Your task to perform on an android device: uninstall "Facebook" Image 0: 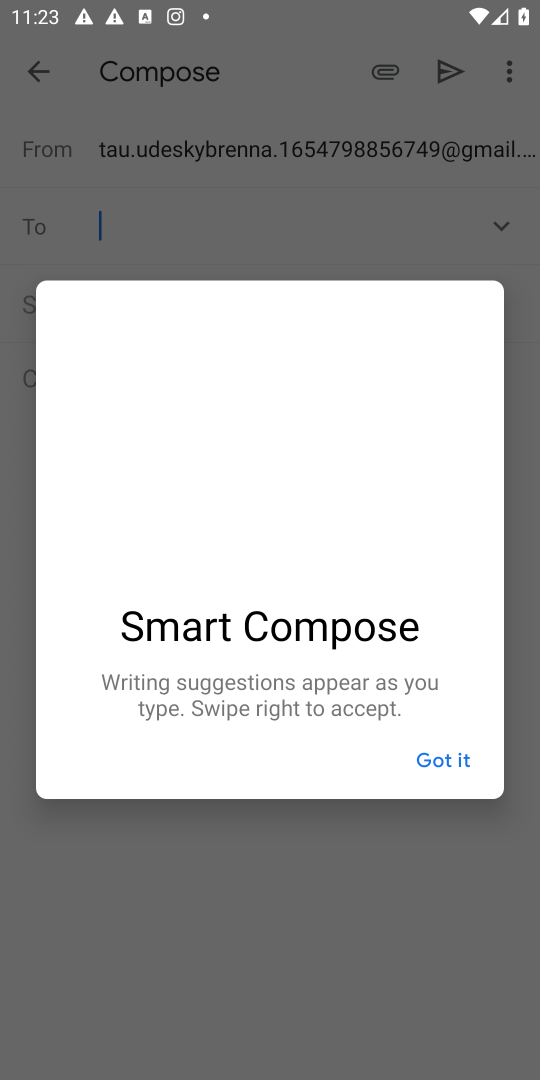
Step 0: click (272, 588)
Your task to perform on an android device: uninstall "Facebook" Image 1: 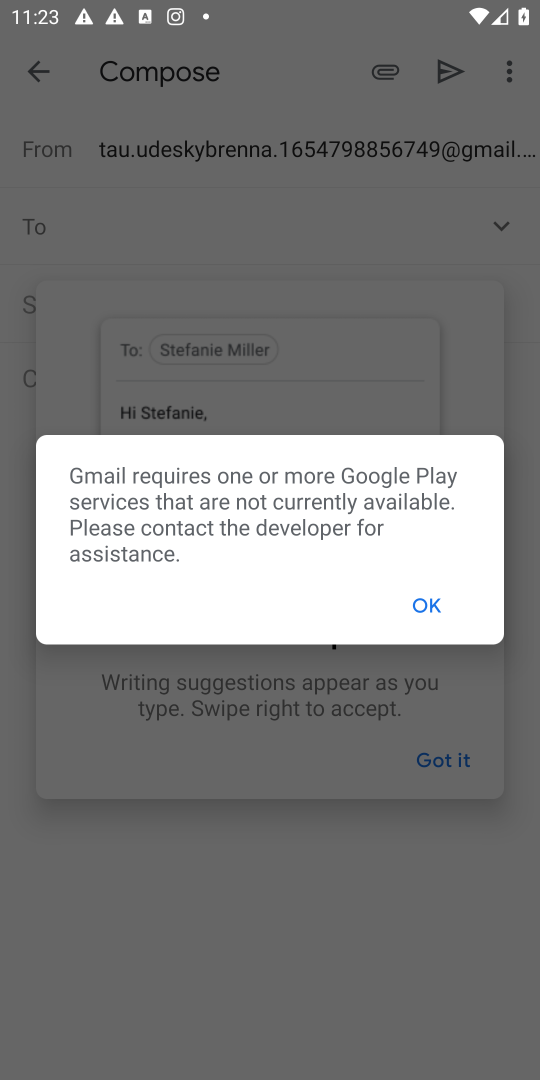
Step 1: press home button
Your task to perform on an android device: uninstall "Facebook" Image 2: 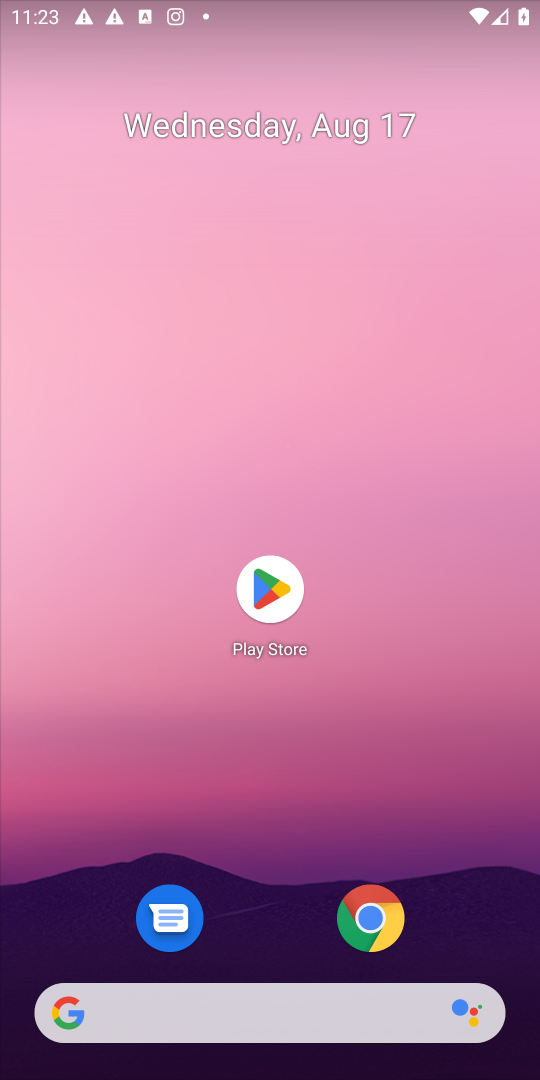
Step 2: click (278, 590)
Your task to perform on an android device: uninstall "Facebook" Image 3: 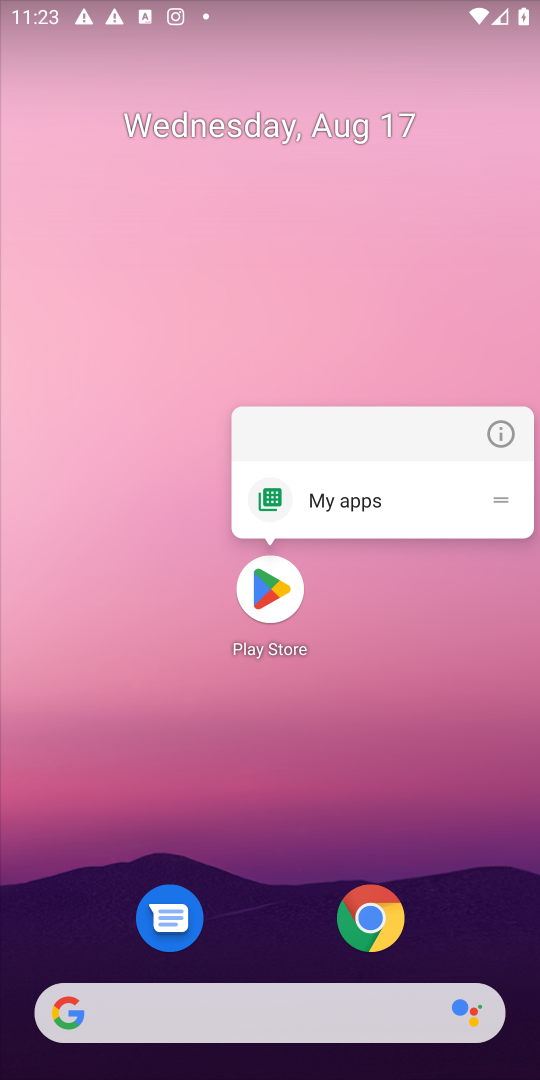
Step 3: click (271, 594)
Your task to perform on an android device: uninstall "Facebook" Image 4: 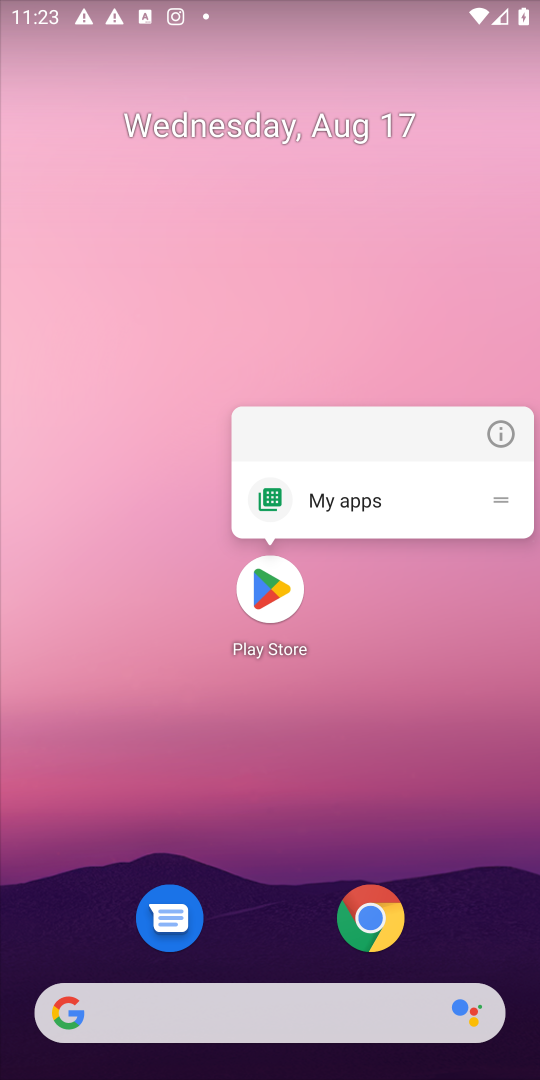
Step 4: click (271, 594)
Your task to perform on an android device: uninstall "Facebook" Image 5: 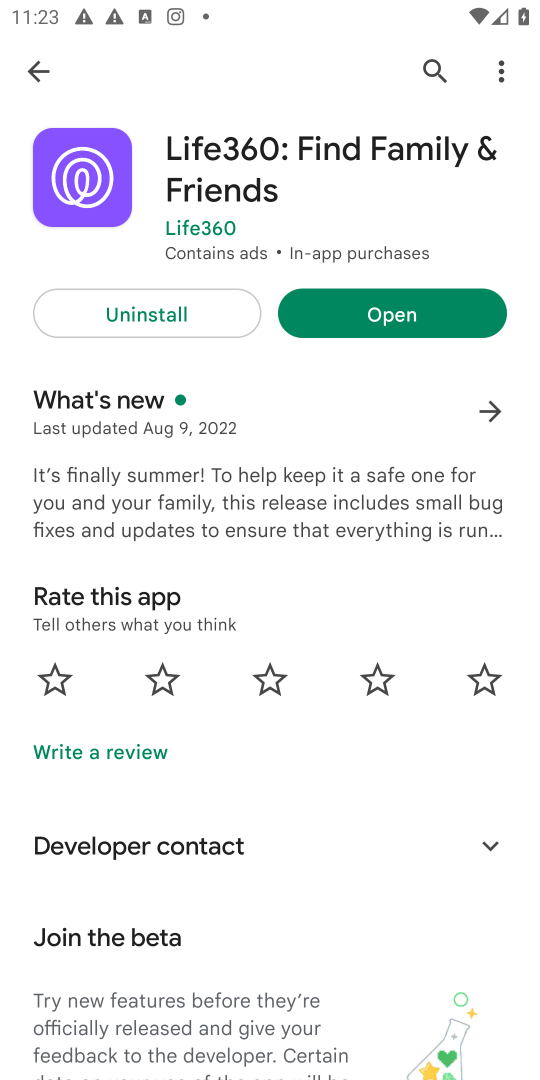
Step 5: click (437, 71)
Your task to perform on an android device: uninstall "Facebook" Image 6: 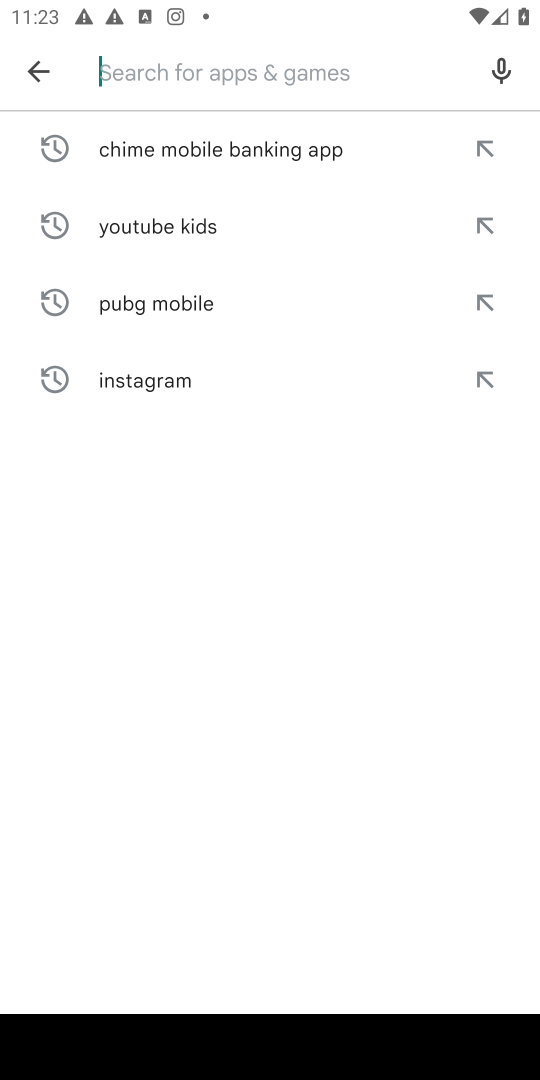
Step 6: type "Facebook"
Your task to perform on an android device: uninstall "Facebook" Image 7: 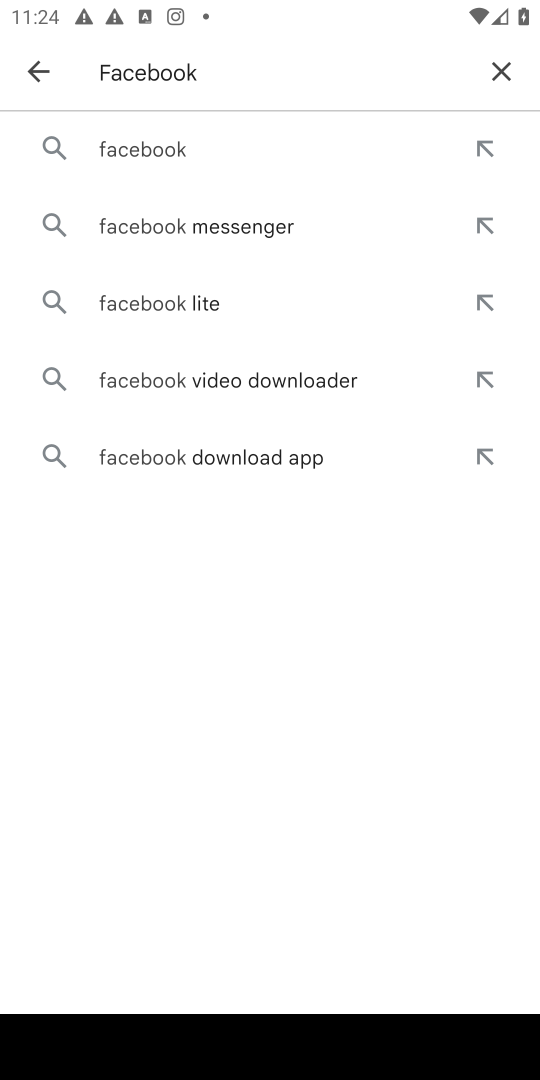
Step 7: click (149, 169)
Your task to perform on an android device: uninstall "Facebook" Image 8: 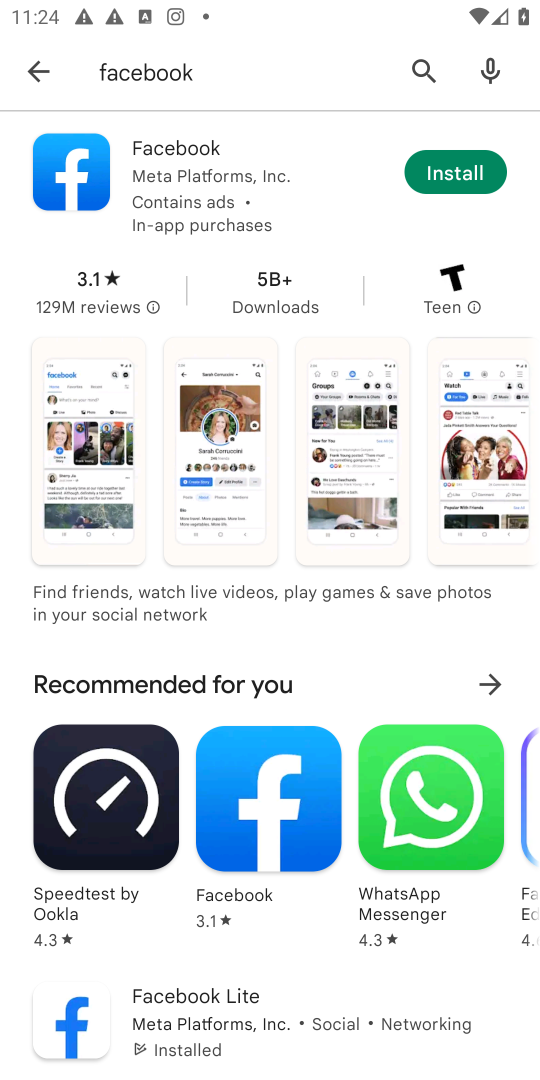
Step 8: task complete